Your task to perform on an android device: Open wifi settings Image 0: 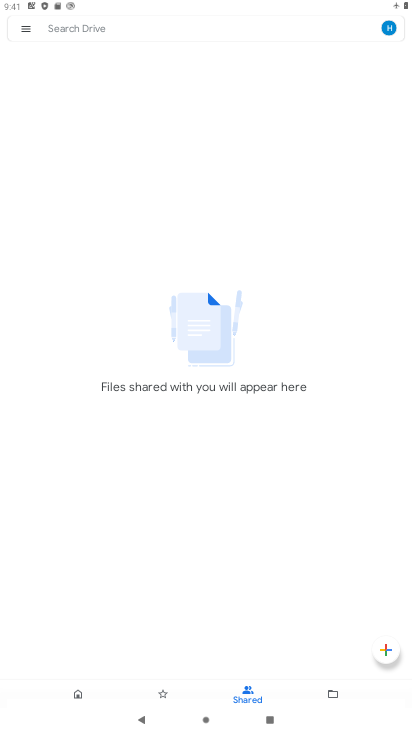
Step 0: press home button
Your task to perform on an android device: Open wifi settings Image 1: 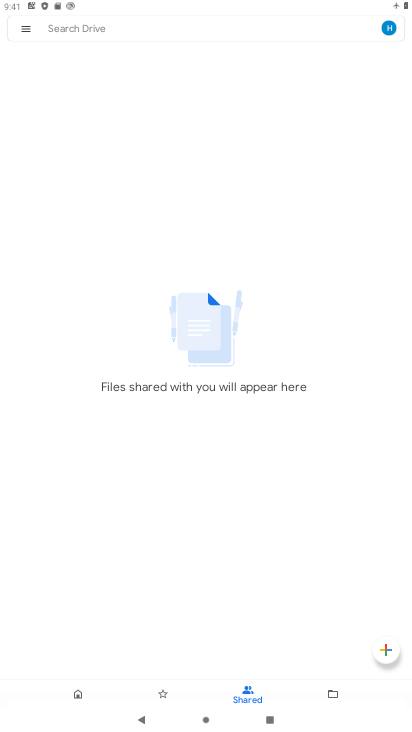
Step 1: press home button
Your task to perform on an android device: Open wifi settings Image 2: 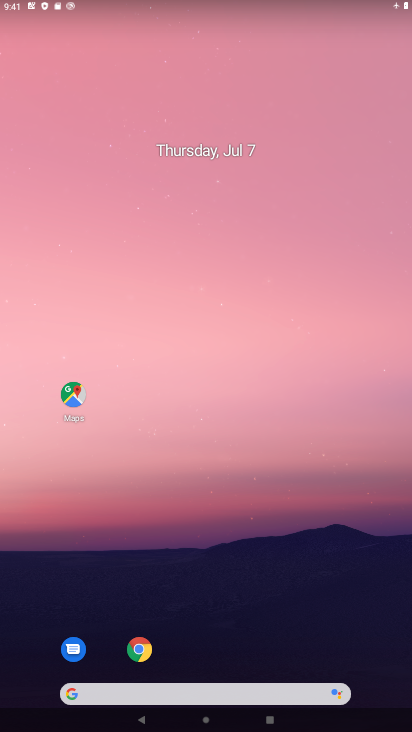
Step 2: drag from (242, 726) to (242, 117)
Your task to perform on an android device: Open wifi settings Image 3: 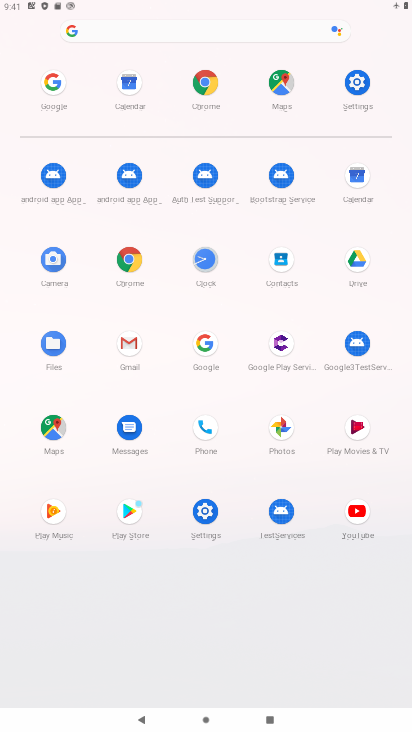
Step 3: click (361, 83)
Your task to perform on an android device: Open wifi settings Image 4: 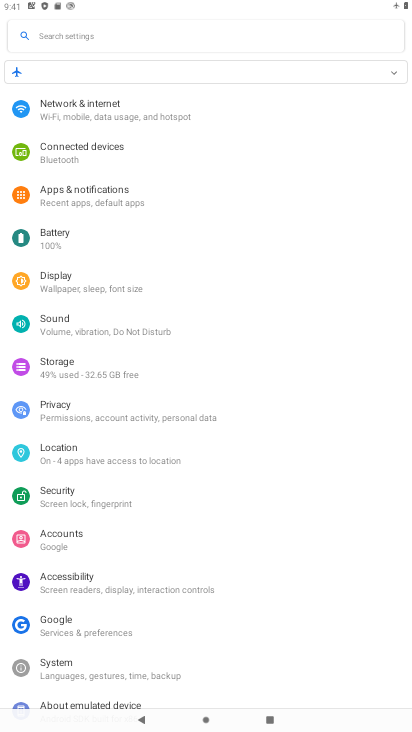
Step 4: click (78, 113)
Your task to perform on an android device: Open wifi settings Image 5: 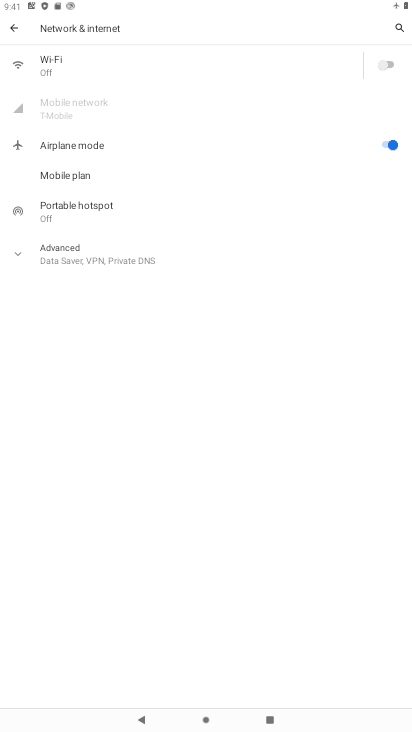
Step 5: click (49, 66)
Your task to perform on an android device: Open wifi settings Image 6: 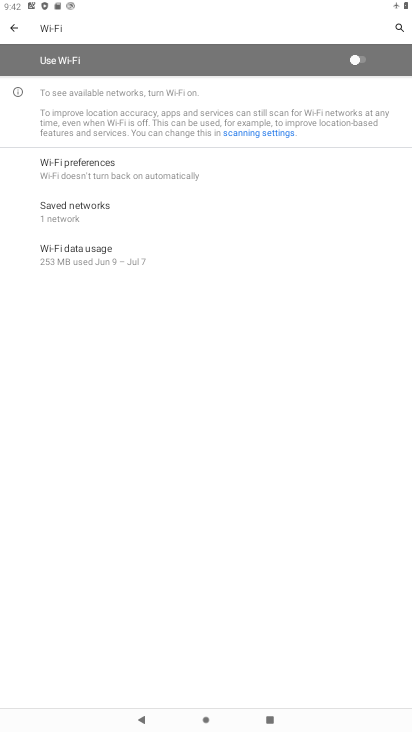
Step 6: task complete